Your task to perform on an android device: Go to Yahoo.com Image 0: 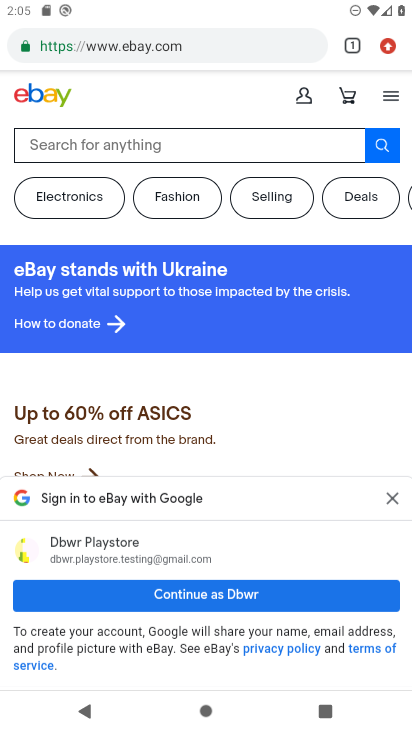
Step 0: press back button
Your task to perform on an android device: Go to Yahoo.com Image 1: 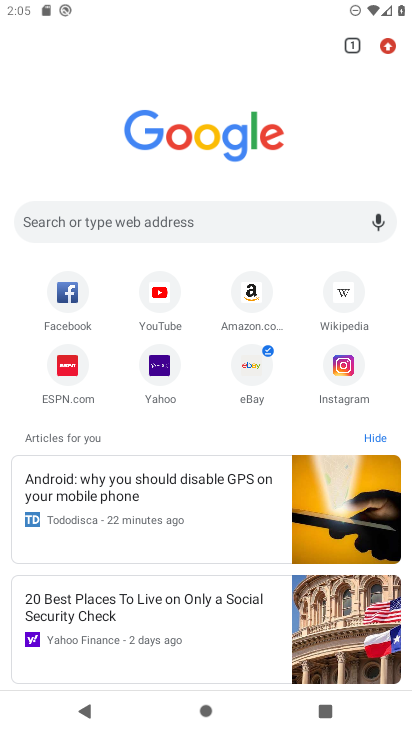
Step 1: click (164, 385)
Your task to perform on an android device: Go to Yahoo.com Image 2: 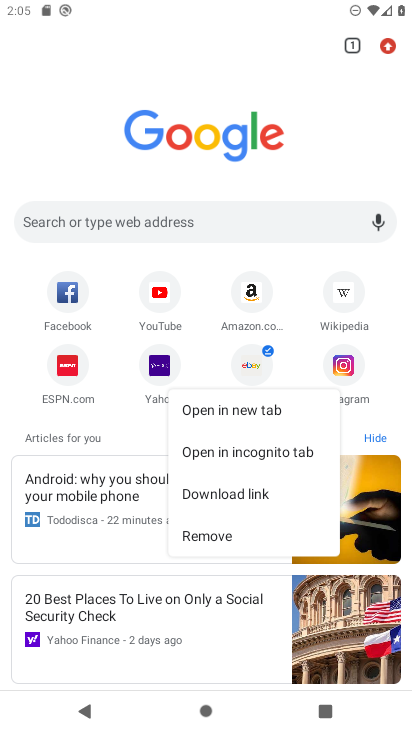
Step 2: click (152, 368)
Your task to perform on an android device: Go to Yahoo.com Image 3: 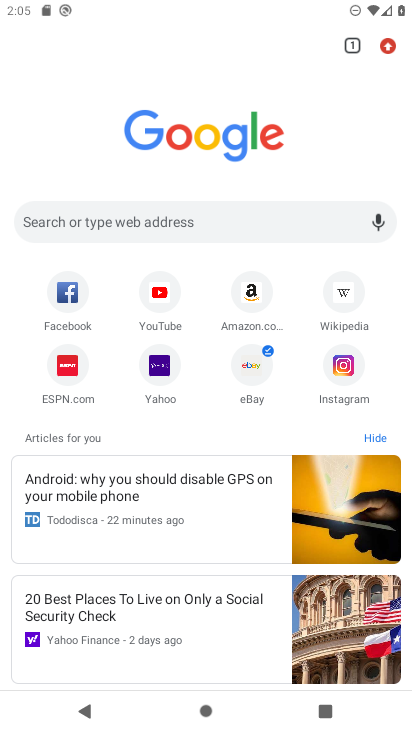
Step 3: click (156, 371)
Your task to perform on an android device: Go to Yahoo.com Image 4: 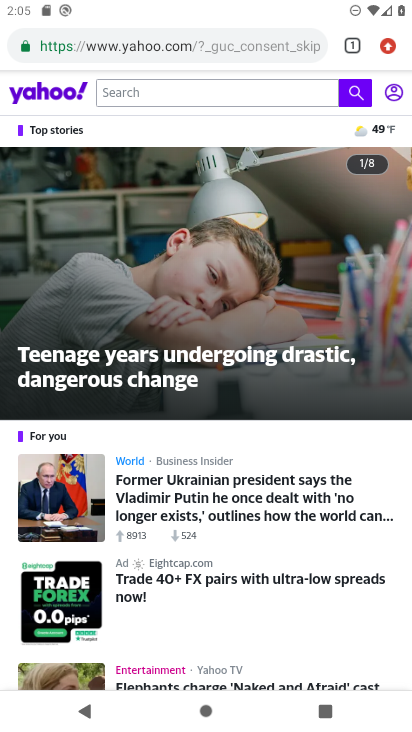
Step 4: task complete